Your task to perform on an android device: check battery use Image 0: 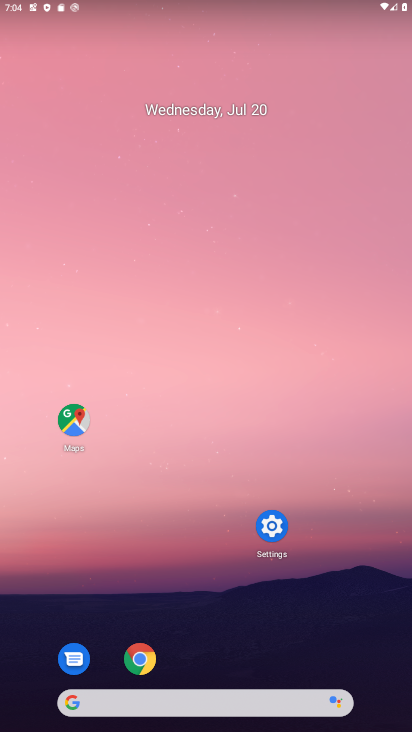
Step 0: click (275, 530)
Your task to perform on an android device: check battery use Image 1: 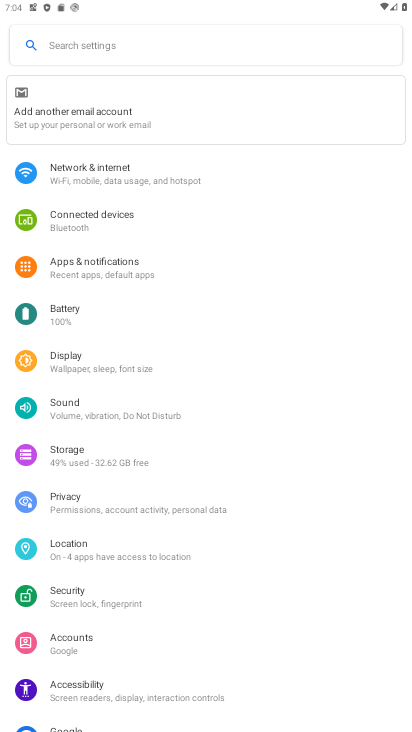
Step 1: click (93, 312)
Your task to perform on an android device: check battery use Image 2: 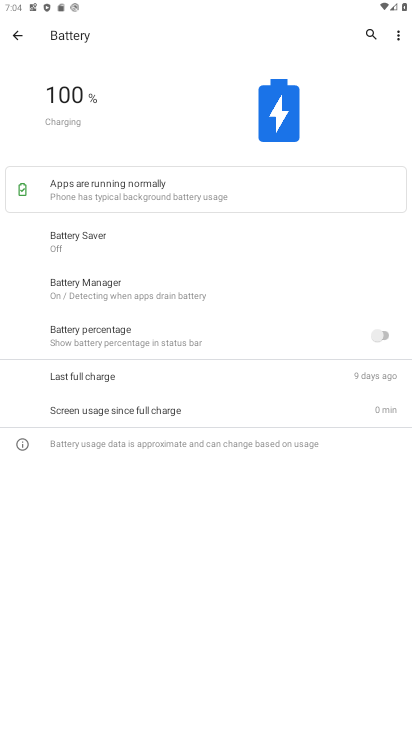
Step 2: task complete